Your task to perform on an android device: Go to Amazon Image 0: 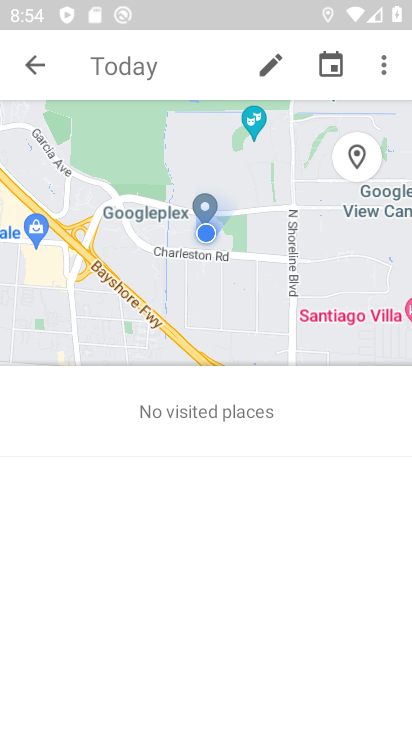
Step 0: press home button
Your task to perform on an android device: Go to Amazon Image 1: 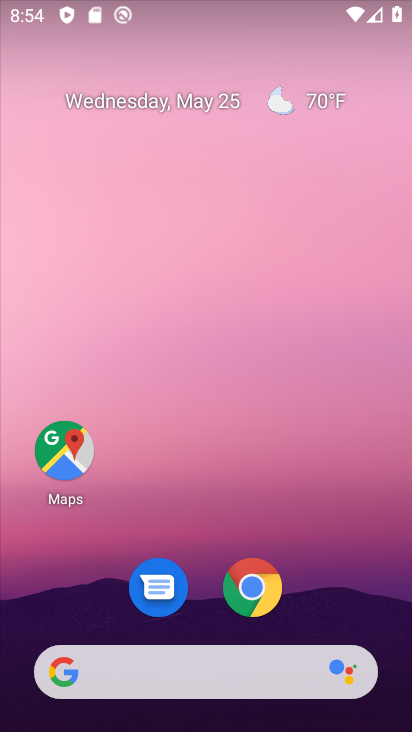
Step 1: click (253, 583)
Your task to perform on an android device: Go to Amazon Image 2: 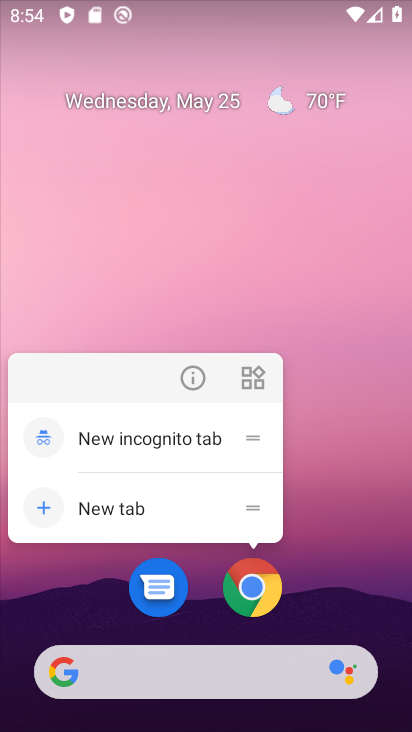
Step 2: click (246, 588)
Your task to perform on an android device: Go to Amazon Image 3: 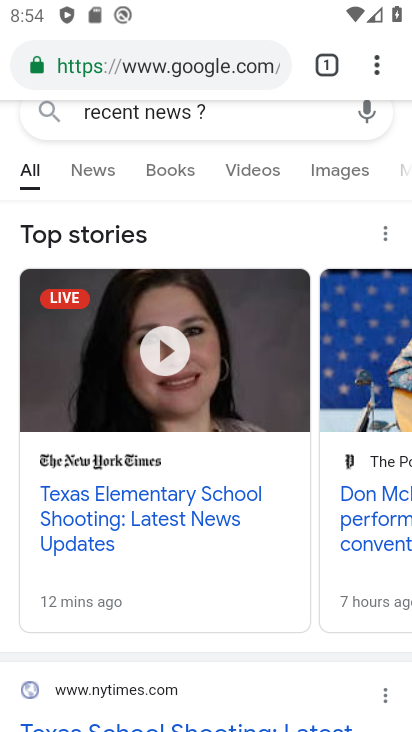
Step 3: click (226, 70)
Your task to perform on an android device: Go to Amazon Image 4: 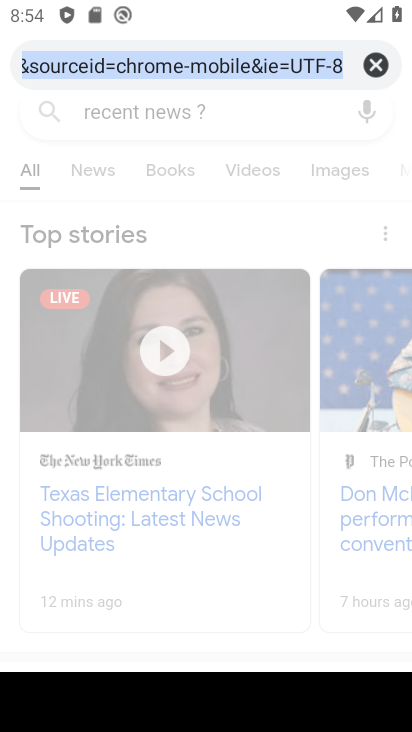
Step 4: type "Amazon"
Your task to perform on an android device: Go to Amazon Image 5: 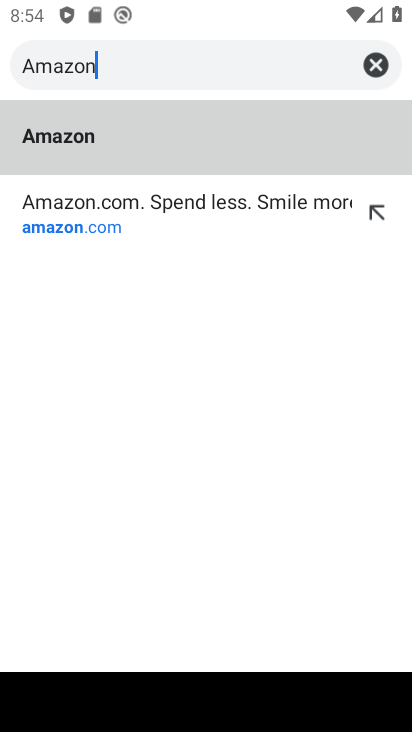
Step 5: click (107, 148)
Your task to perform on an android device: Go to Amazon Image 6: 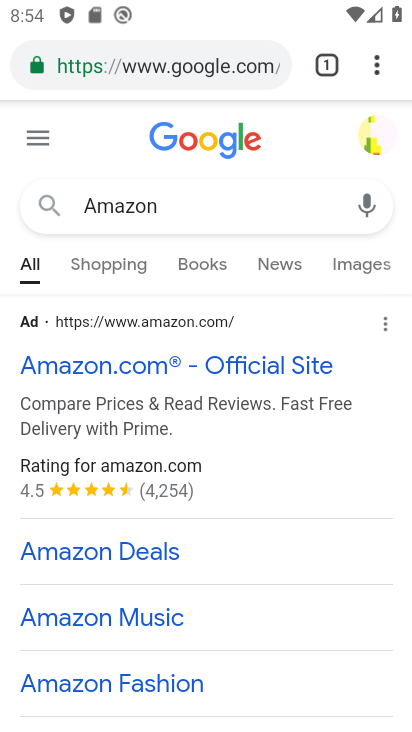
Step 6: task complete